Your task to perform on an android device: turn off notifications in google photos Image 0: 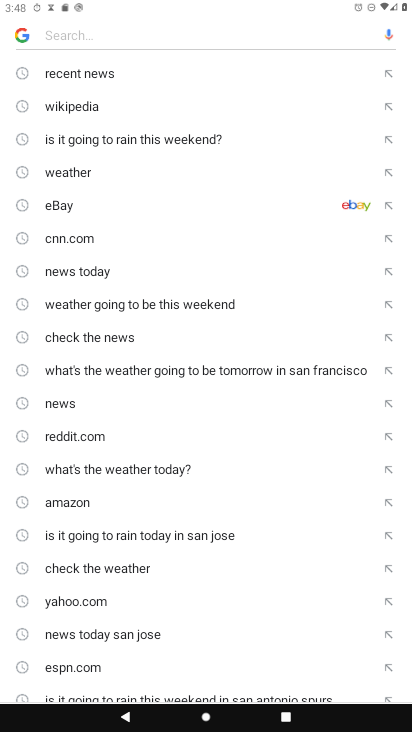
Step 0: drag from (320, 622) to (277, 184)
Your task to perform on an android device: turn off notifications in google photos Image 1: 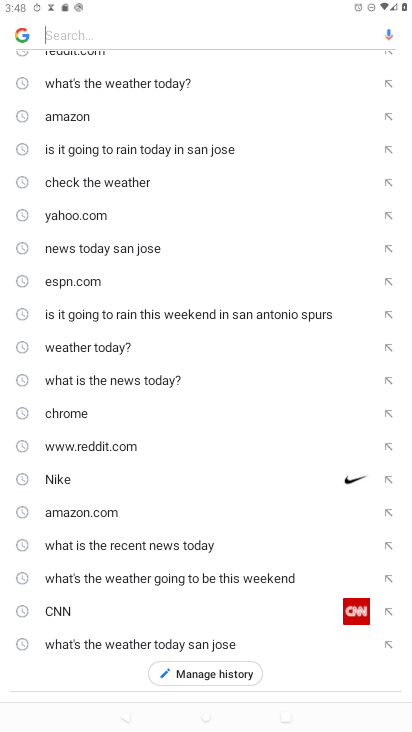
Step 1: press home button
Your task to perform on an android device: turn off notifications in google photos Image 2: 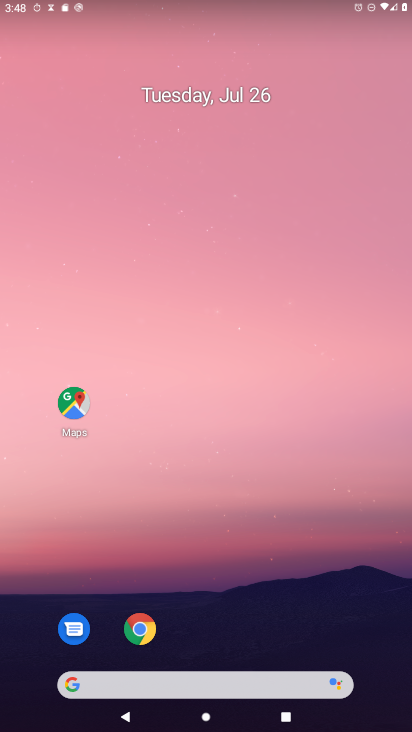
Step 2: drag from (146, 622) to (142, 124)
Your task to perform on an android device: turn off notifications in google photos Image 3: 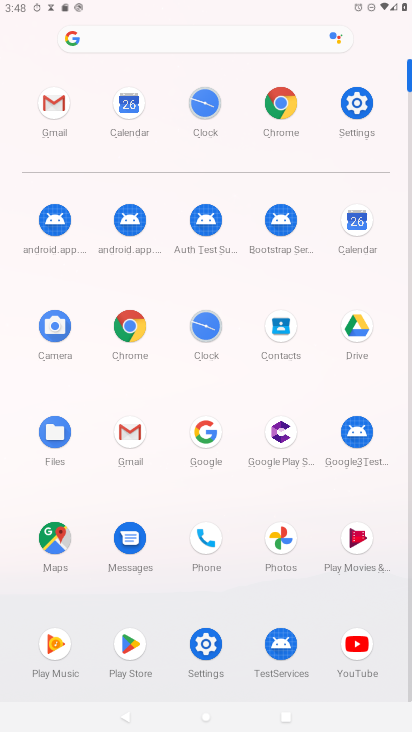
Step 3: click (282, 528)
Your task to perform on an android device: turn off notifications in google photos Image 4: 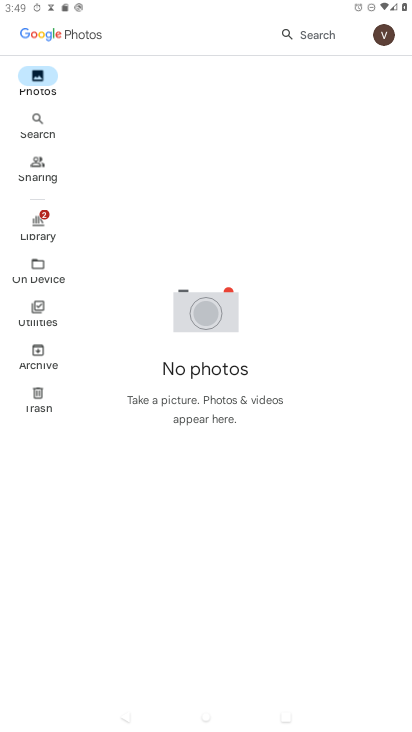
Step 4: click (381, 32)
Your task to perform on an android device: turn off notifications in google photos Image 5: 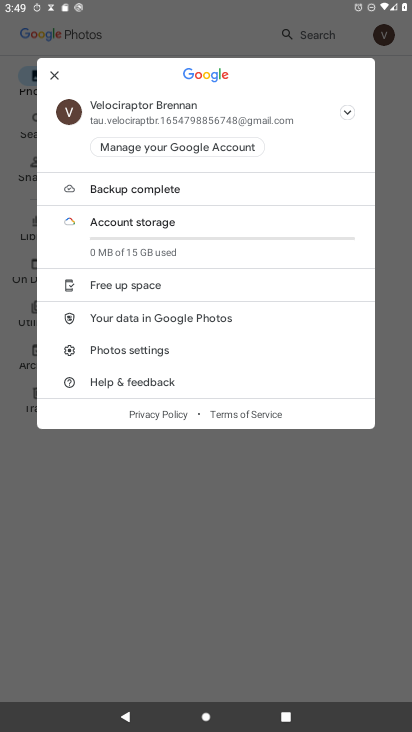
Step 5: click (144, 354)
Your task to perform on an android device: turn off notifications in google photos Image 6: 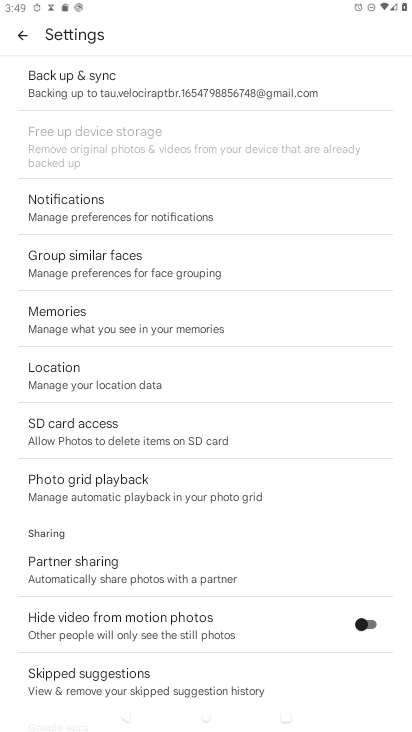
Step 6: click (162, 203)
Your task to perform on an android device: turn off notifications in google photos Image 7: 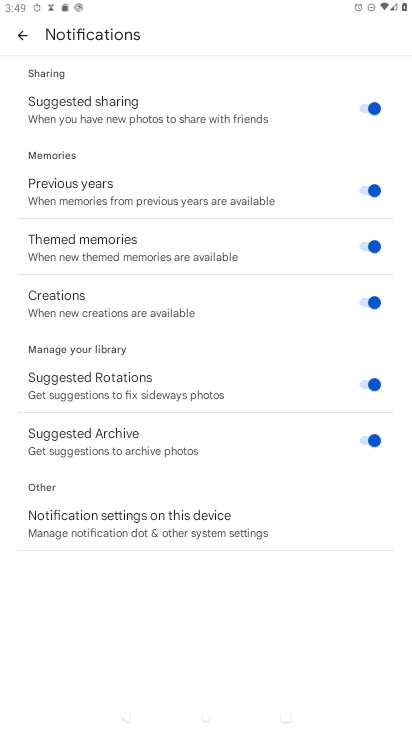
Step 7: click (264, 541)
Your task to perform on an android device: turn off notifications in google photos Image 8: 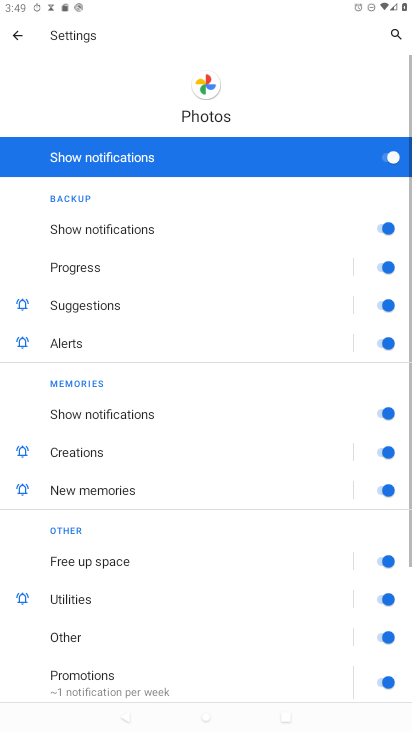
Step 8: click (391, 157)
Your task to perform on an android device: turn off notifications in google photos Image 9: 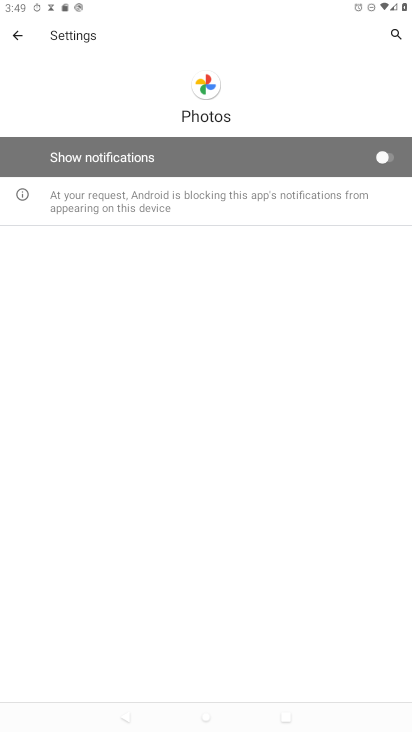
Step 9: task complete